Your task to perform on an android device: Open the phone app and click the voicemail tab. Image 0: 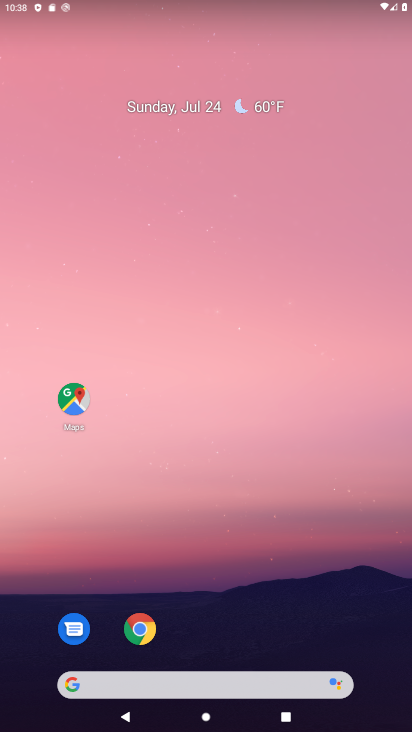
Step 0: click (267, 135)
Your task to perform on an android device: Open the phone app and click the voicemail tab. Image 1: 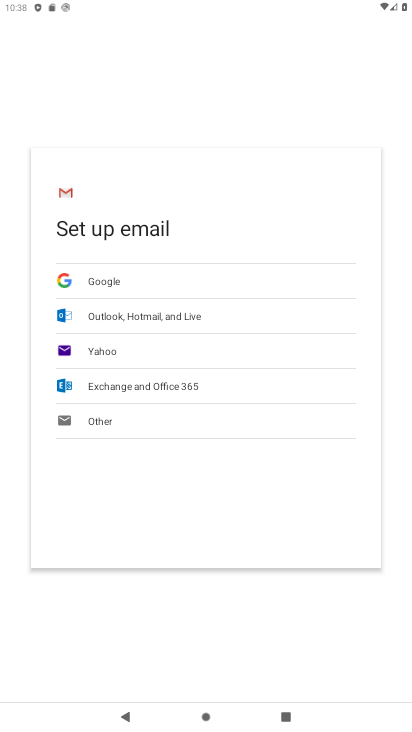
Step 1: drag from (250, 526) to (237, 221)
Your task to perform on an android device: Open the phone app and click the voicemail tab. Image 2: 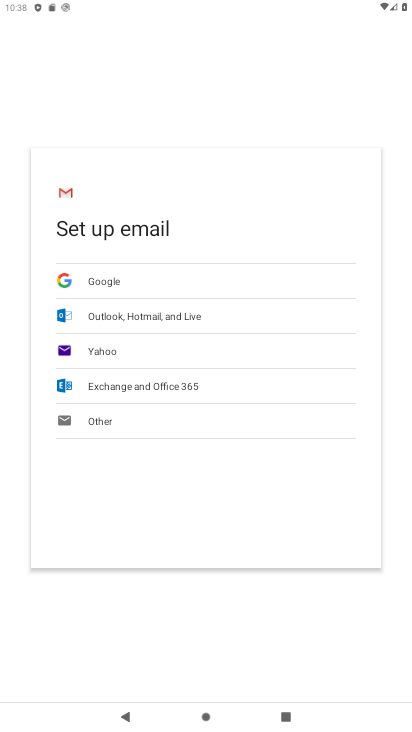
Step 2: press back button
Your task to perform on an android device: Open the phone app and click the voicemail tab. Image 3: 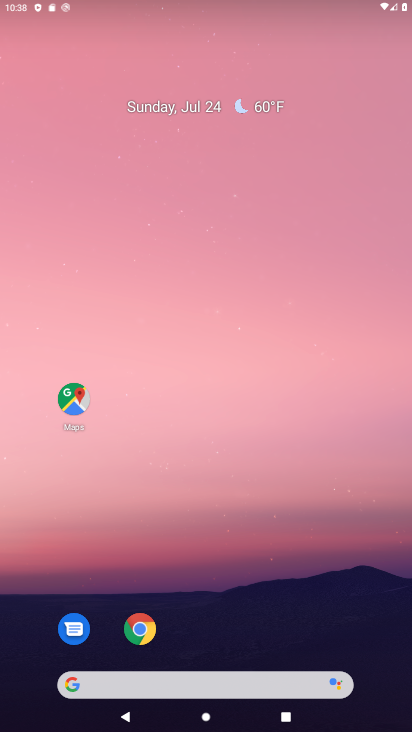
Step 3: drag from (244, 661) to (240, 82)
Your task to perform on an android device: Open the phone app and click the voicemail tab. Image 4: 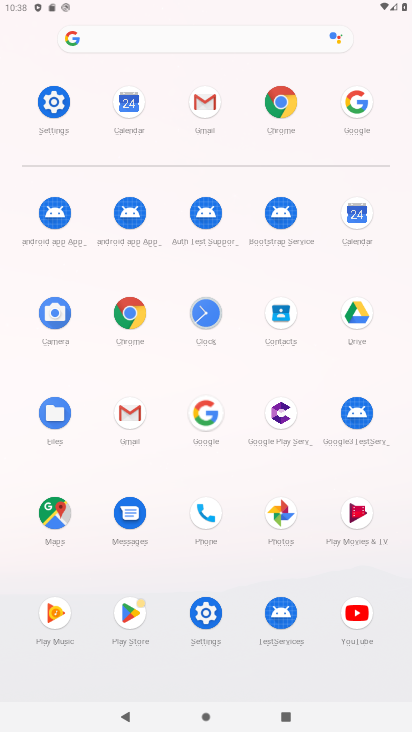
Step 4: click (206, 513)
Your task to perform on an android device: Open the phone app and click the voicemail tab. Image 5: 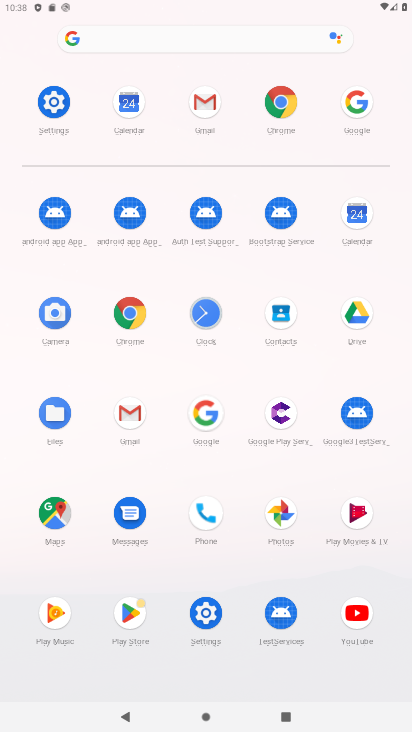
Step 5: click (206, 508)
Your task to perform on an android device: Open the phone app and click the voicemail tab. Image 6: 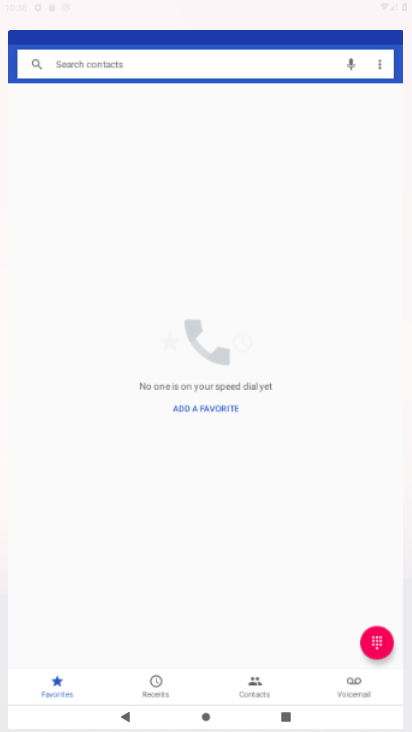
Step 6: click (212, 506)
Your task to perform on an android device: Open the phone app and click the voicemail tab. Image 7: 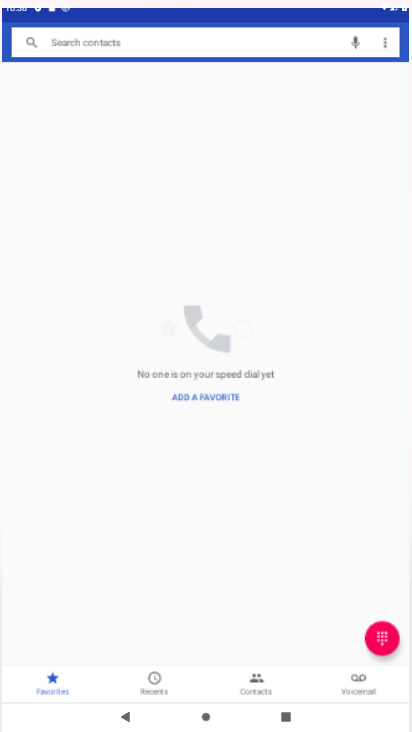
Step 7: click (213, 506)
Your task to perform on an android device: Open the phone app and click the voicemail tab. Image 8: 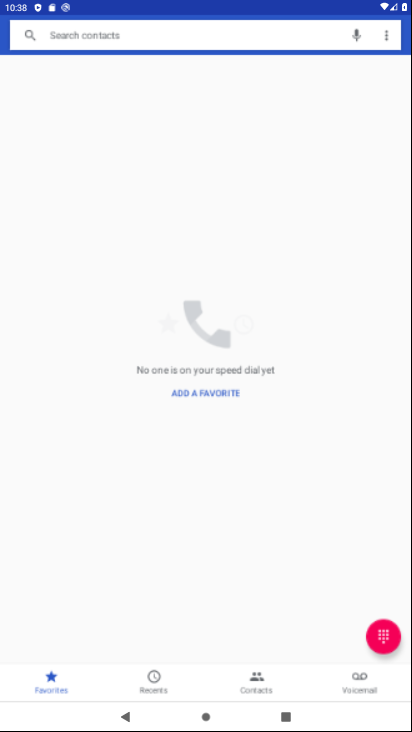
Step 8: click (367, 673)
Your task to perform on an android device: Open the phone app and click the voicemail tab. Image 9: 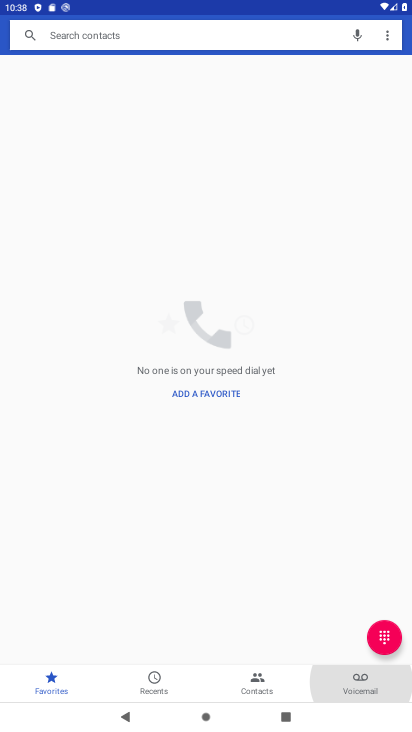
Step 9: click (368, 673)
Your task to perform on an android device: Open the phone app and click the voicemail tab. Image 10: 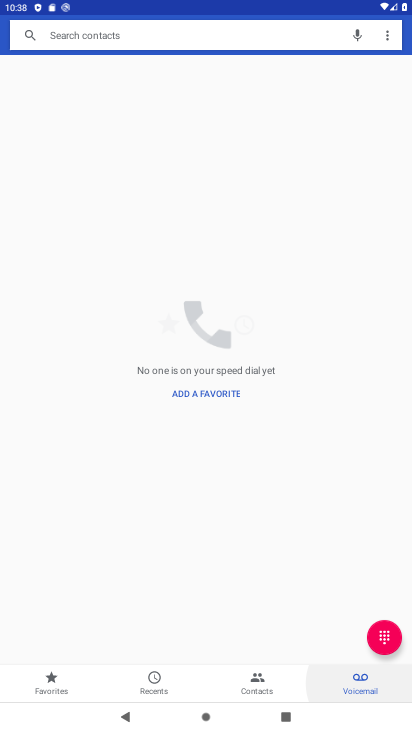
Step 10: click (369, 674)
Your task to perform on an android device: Open the phone app and click the voicemail tab. Image 11: 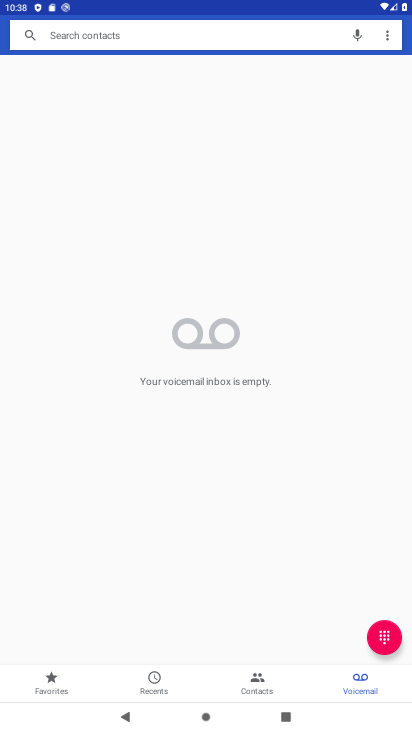
Step 11: press back button
Your task to perform on an android device: Open the phone app and click the voicemail tab. Image 12: 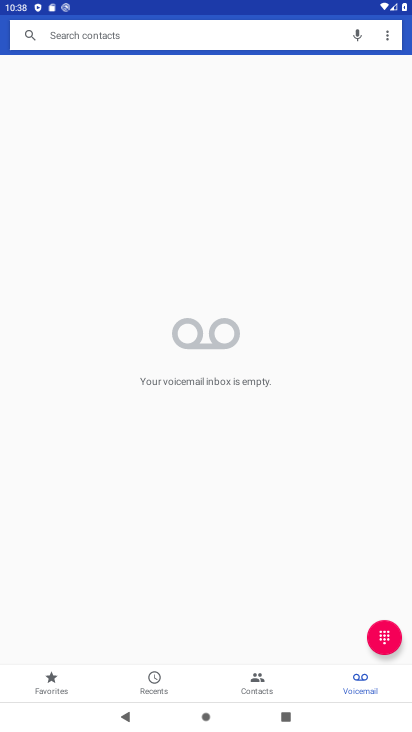
Step 12: press back button
Your task to perform on an android device: Open the phone app and click the voicemail tab. Image 13: 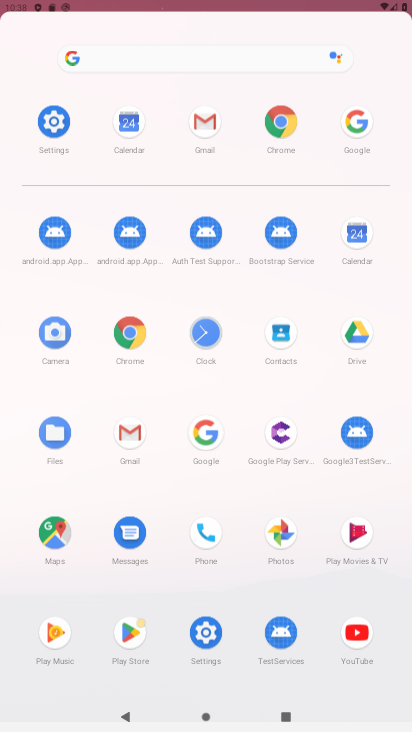
Step 13: press back button
Your task to perform on an android device: Open the phone app and click the voicemail tab. Image 14: 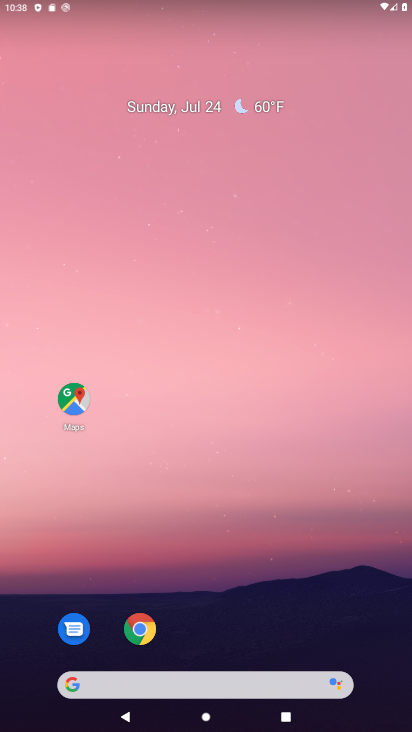
Step 14: drag from (221, 211) to (217, 56)
Your task to perform on an android device: Open the phone app and click the voicemail tab. Image 15: 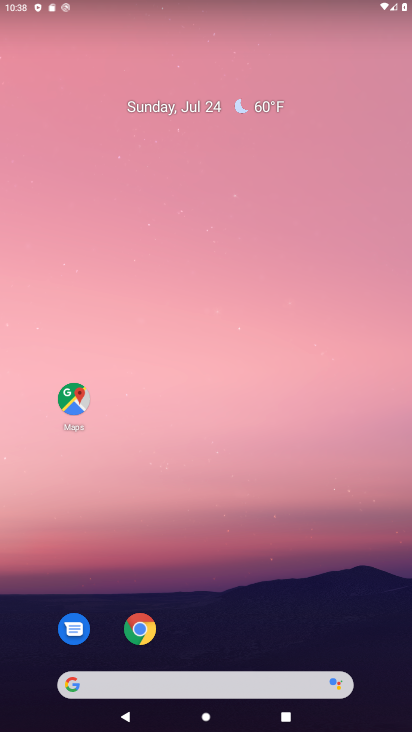
Step 15: drag from (240, 508) to (247, 170)
Your task to perform on an android device: Open the phone app and click the voicemail tab. Image 16: 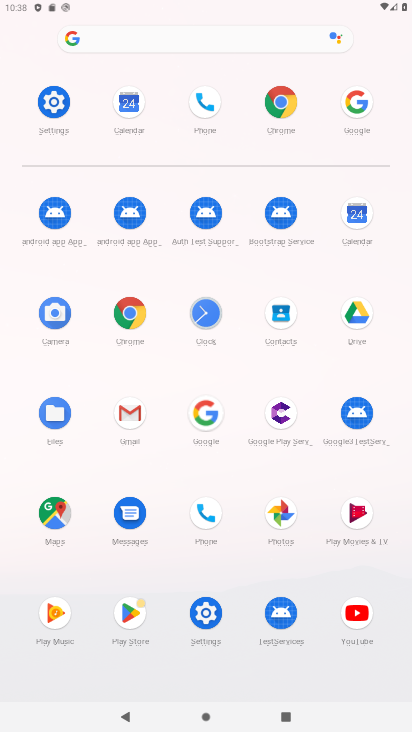
Step 16: drag from (262, 514) to (272, 61)
Your task to perform on an android device: Open the phone app and click the voicemail tab. Image 17: 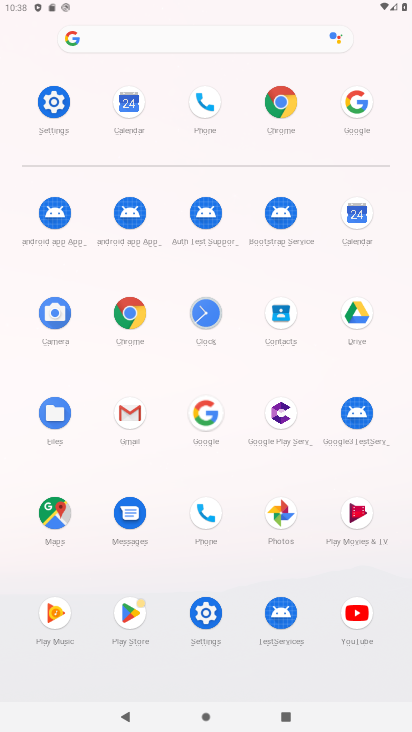
Step 17: click (206, 503)
Your task to perform on an android device: Open the phone app and click the voicemail tab. Image 18: 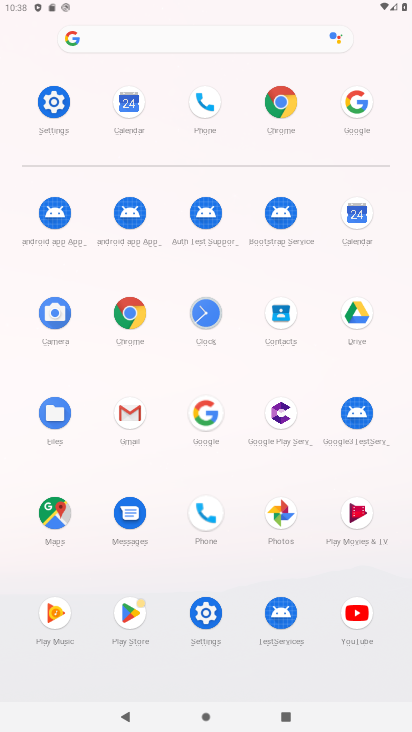
Step 18: click (203, 510)
Your task to perform on an android device: Open the phone app and click the voicemail tab. Image 19: 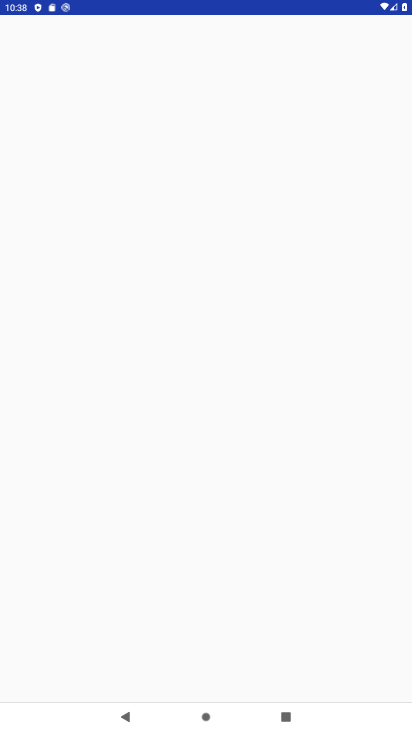
Step 19: click (208, 505)
Your task to perform on an android device: Open the phone app and click the voicemail tab. Image 20: 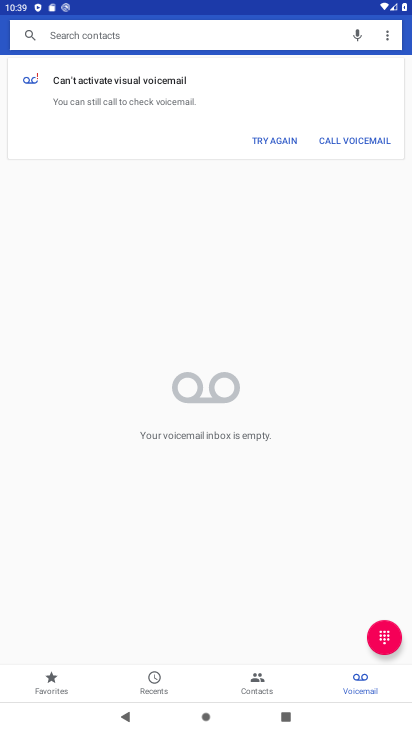
Step 20: click (344, 672)
Your task to perform on an android device: Open the phone app and click the voicemail tab. Image 21: 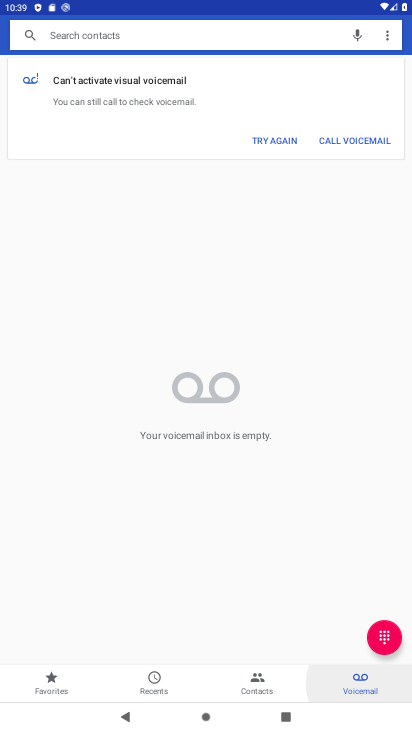
Step 21: click (344, 673)
Your task to perform on an android device: Open the phone app and click the voicemail tab. Image 22: 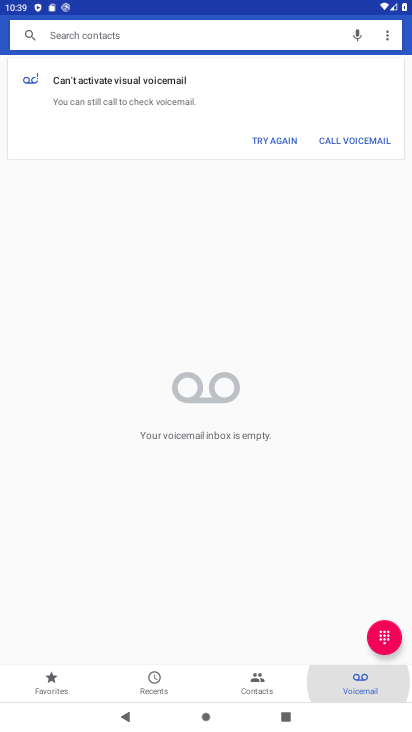
Step 22: click (348, 675)
Your task to perform on an android device: Open the phone app and click the voicemail tab. Image 23: 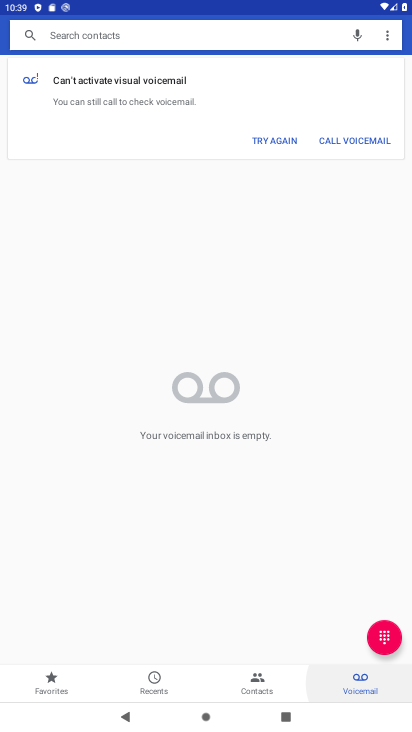
Step 23: click (358, 670)
Your task to perform on an android device: Open the phone app and click the voicemail tab. Image 24: 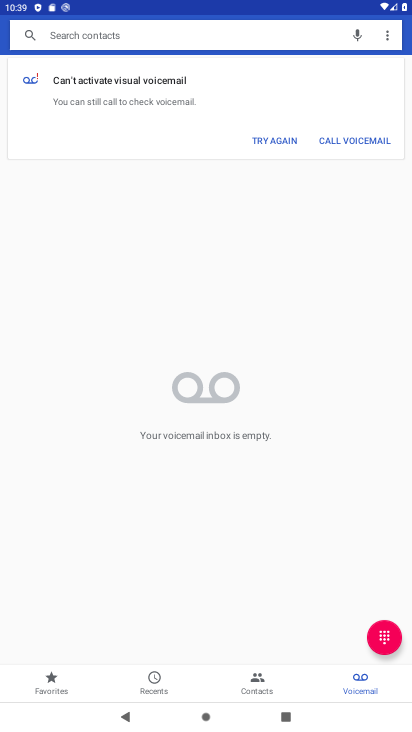
Step 24: task complete